Your task to perform on an android device: Open the map Image 0: 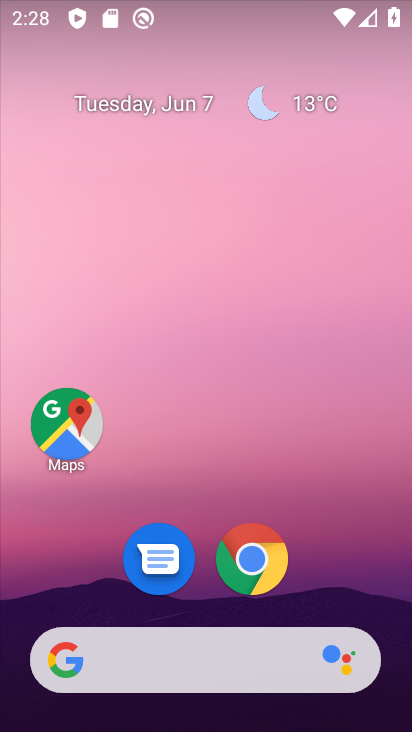
Step 0: click (67, 428)
Your task to perform on an android device: Open the map Image 1: 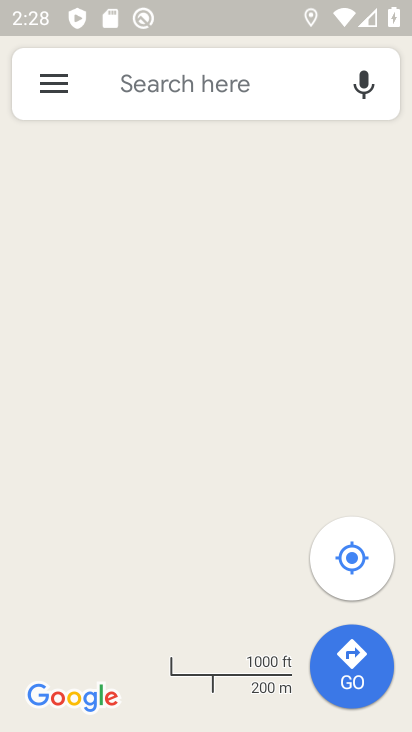
Step 1: task complete